Your task to perform on an android device: toggle notifications settings in the gmail app Image 0: 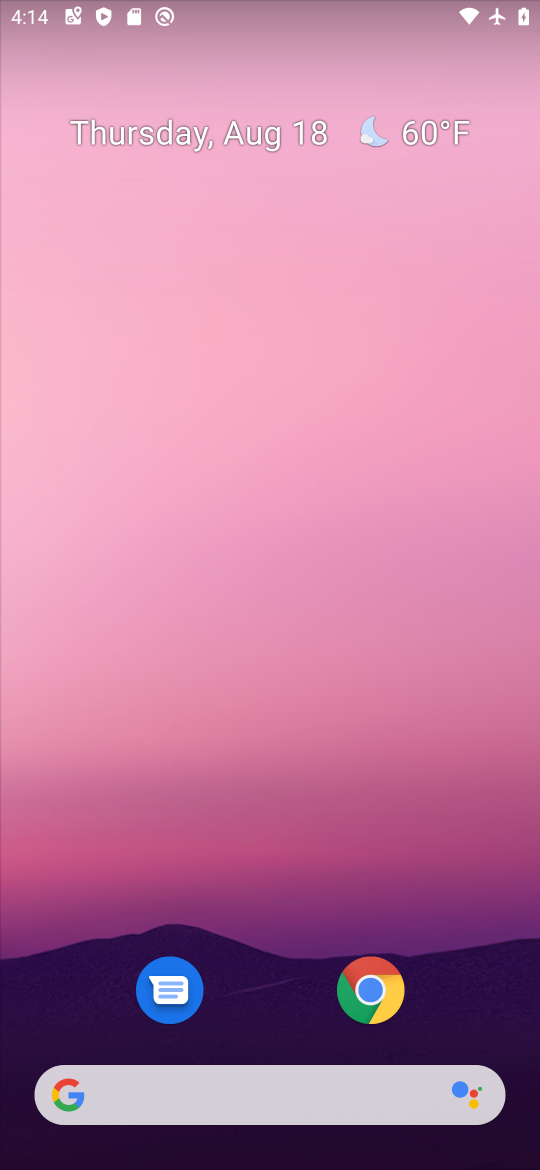
Step 0: drag from (270, 950) to (280, 190)
Your task to perform on an android device: toggle notifications settings in the gmail app Image 1: 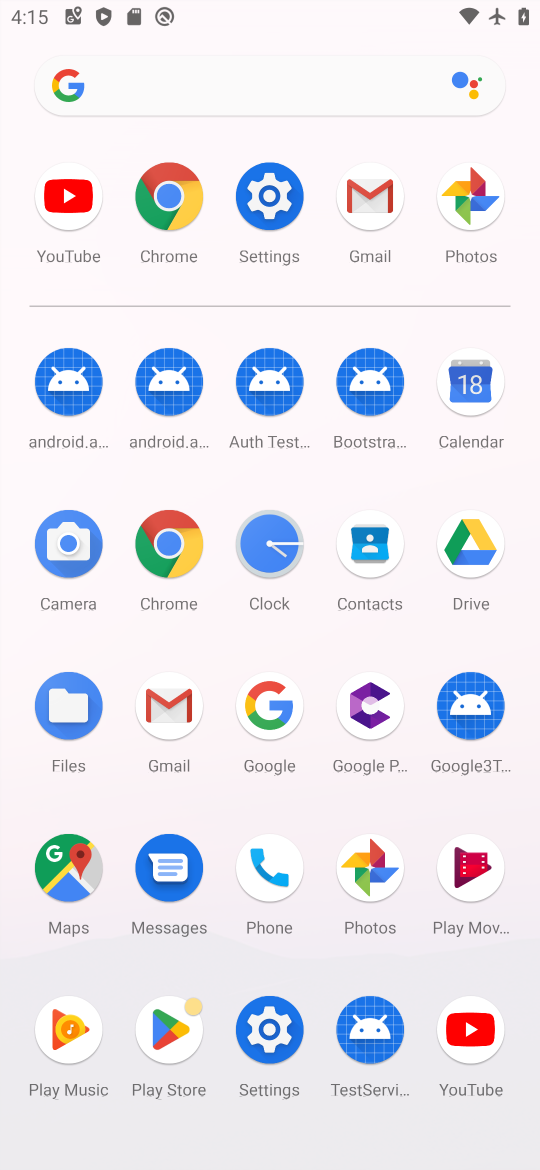
Step 1: click (174, 714)
Your task to perform on an android device: toggle notifications settings in the gmail app Image 2: 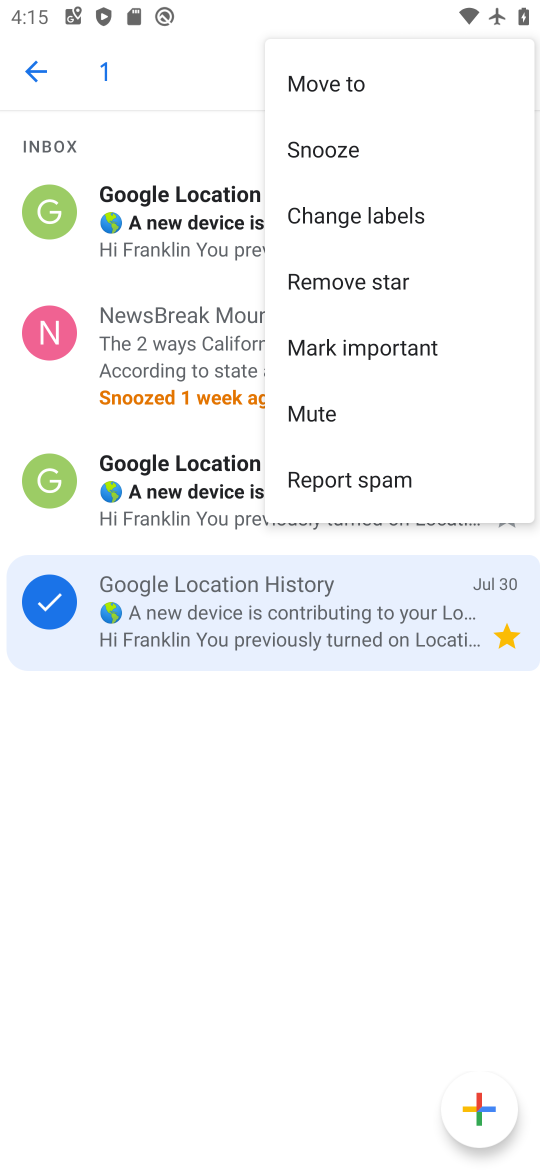
Step 2: click (256, 834)
Your task to perform on an android device: toggle notifications settings in the gmail app Image 3: 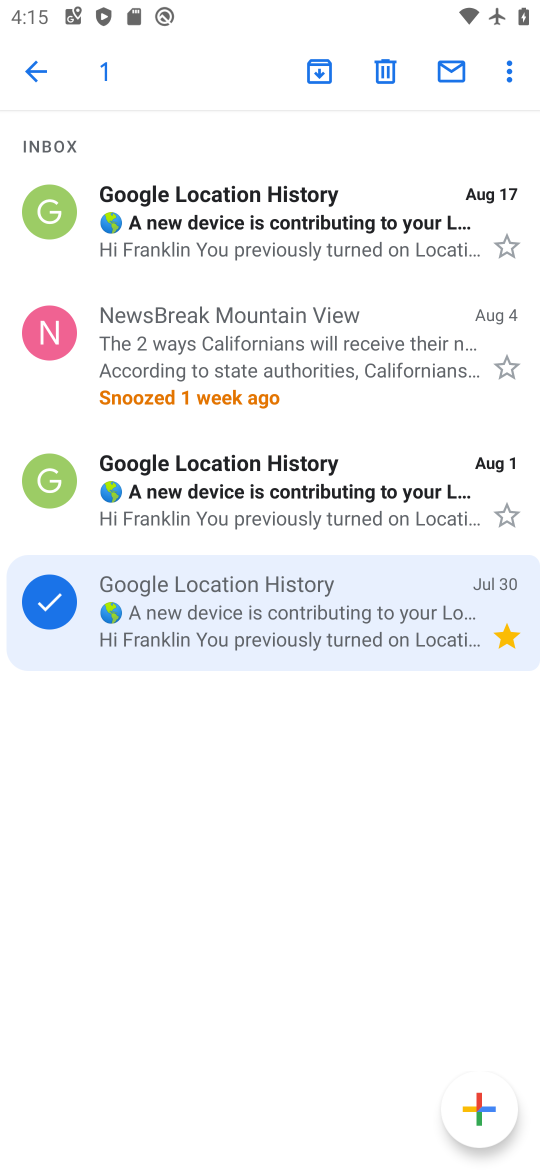
Step 3: press back button
Your task to perform on an android device: toggle notifications settings in the gmail app Image 4: 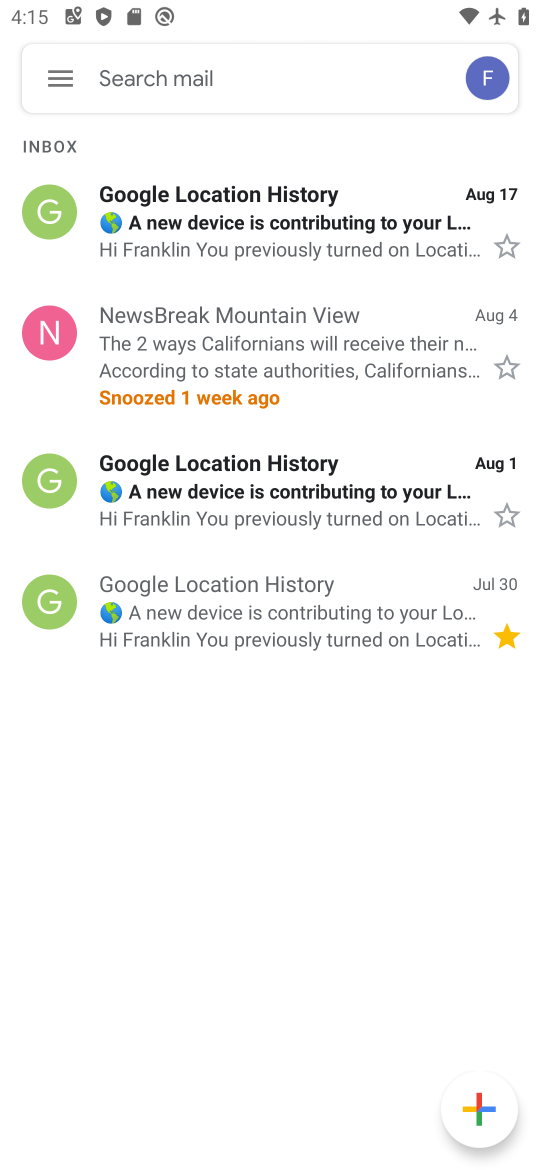
Step 4: click (66, 84)
Your task to perform on an android device: toggle notifications settings in the gmail app Image 5: 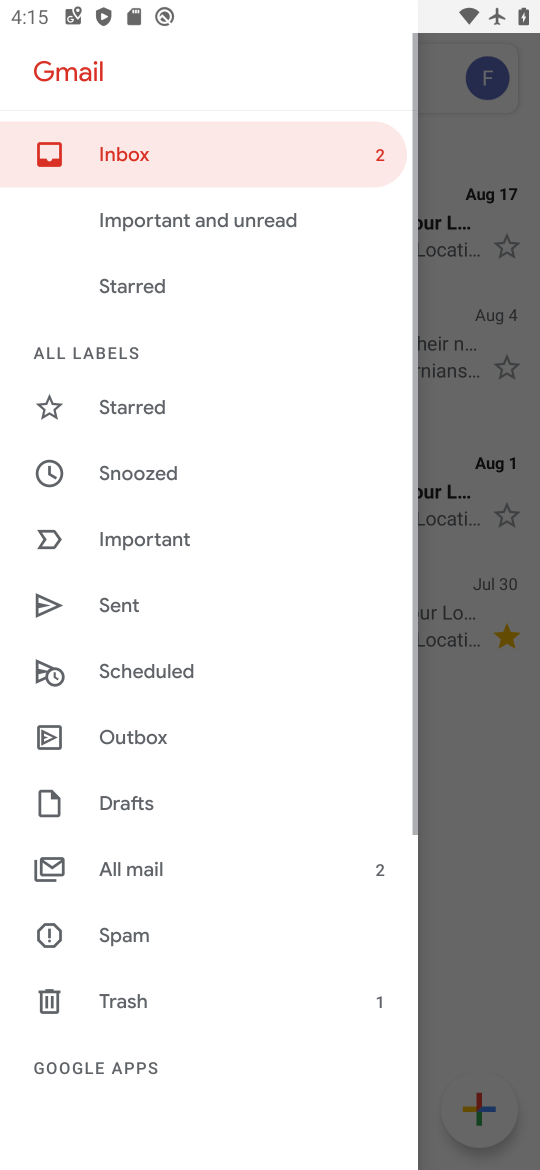
Step 5: drag from (201, 924) to (245, 1)
Your task to perform on an android device: toggle notifications settings in the gmail app Image 6: 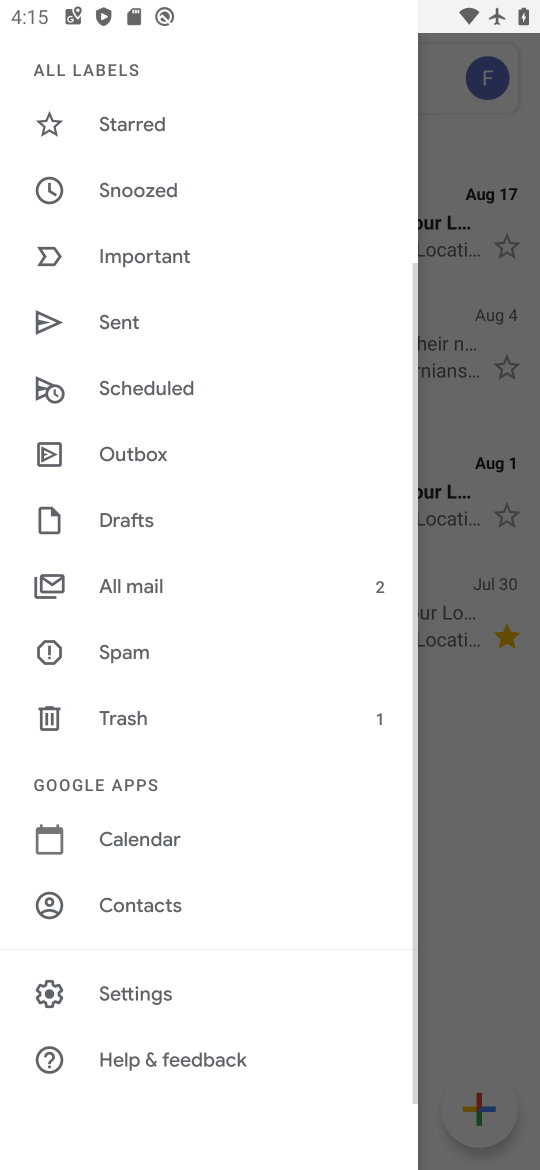
Step 6: click (152, 995)
Your task to perform on an android device: toggle notifications settings in the gmail app Image 7: 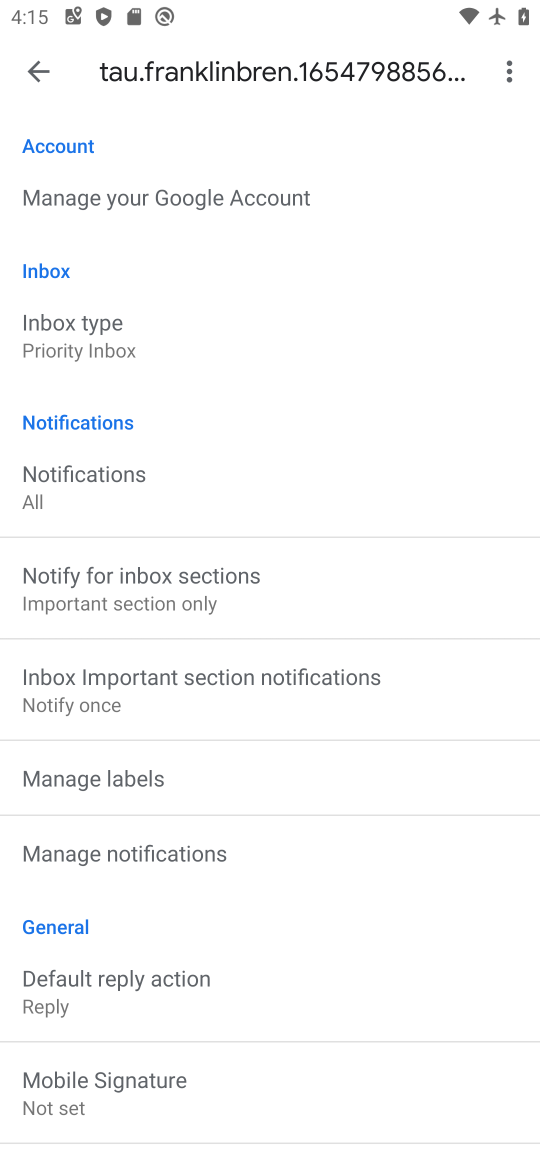
Step 7: click (215, 861)
Your task to perform on an android device: toggle notifications settings in the gmail app Image 8: 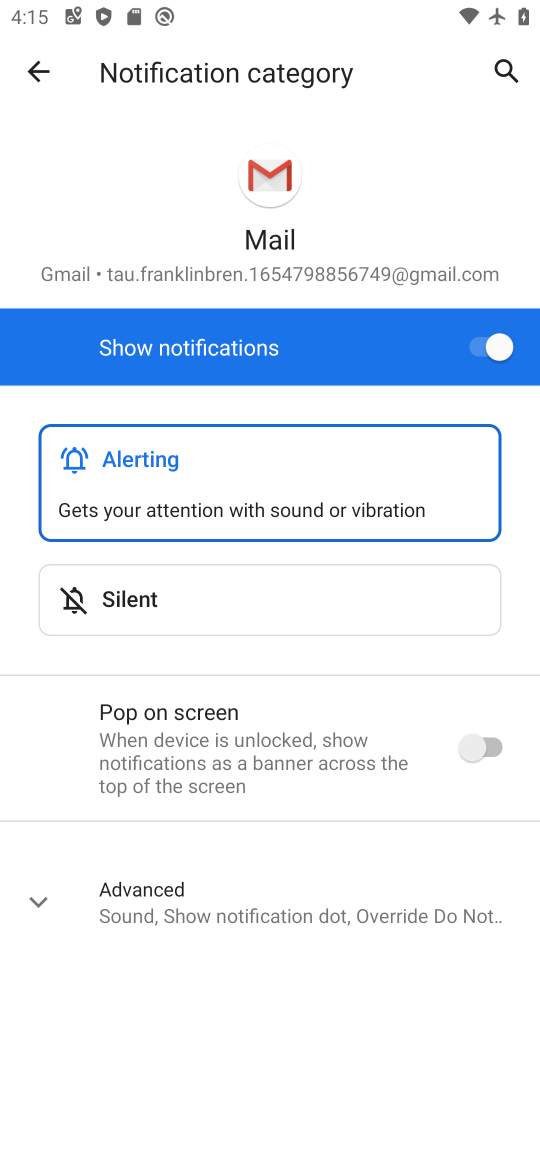
Step 8: click (503, 345)
Your task to perform on an android device: toggle notifications settings in the gmail app Image 9: 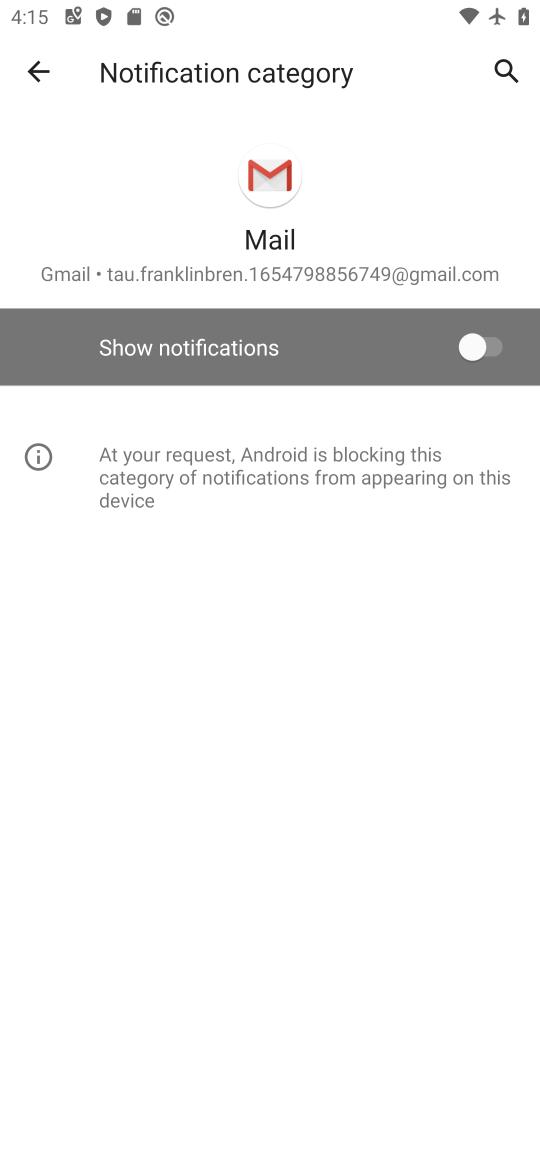
Step 9: task complete